Your task to perform on an android device: turn off javascript in the chrome app Image 0: 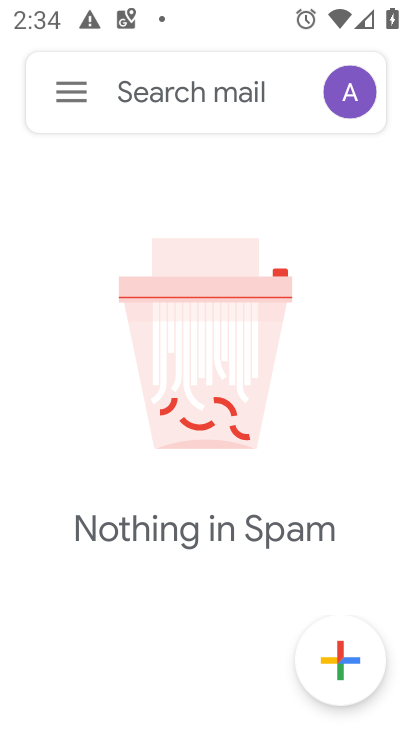
Step 0: press home button
Your task to perform on an android device: turn off javascript in the chrome app Image 1: 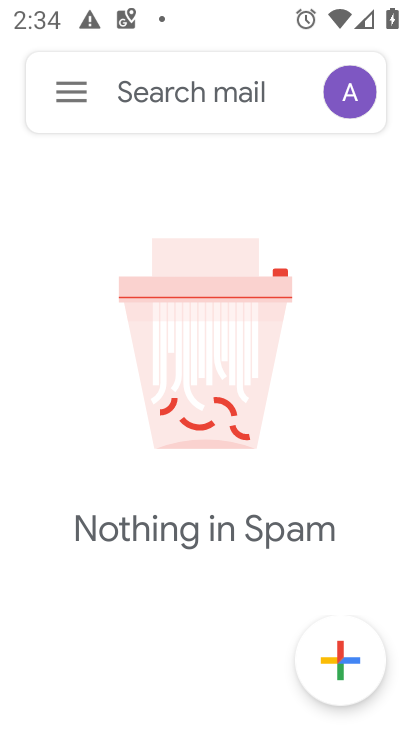
Step 1: press home button
Your task to perform on an android device: turn off javascript in the chrome app Image 2: 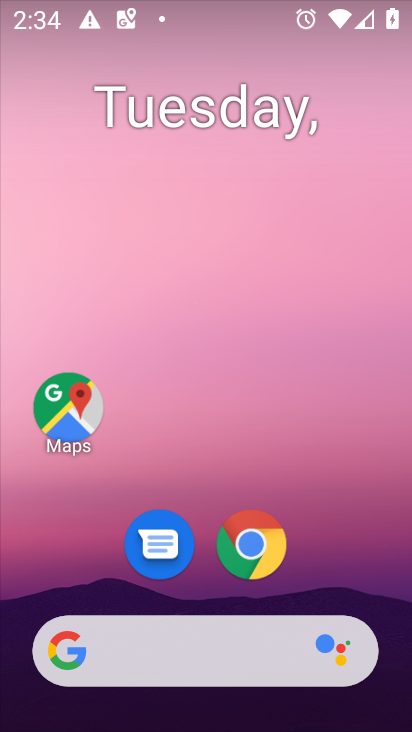
Step 2: drag from (345, 514) to (329, 24)
Your task to perform on an android device: turn off javascript in the chrome app Image 3: 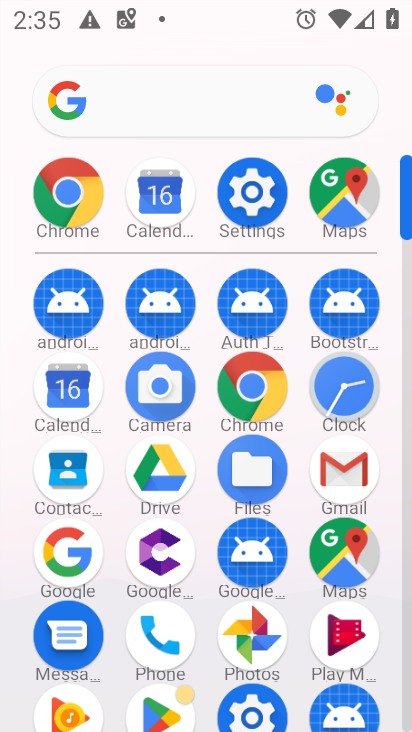
Step 3: click (263, 380)
Your task to perform on an android device: turn off javascript in the chrome app Image 4: 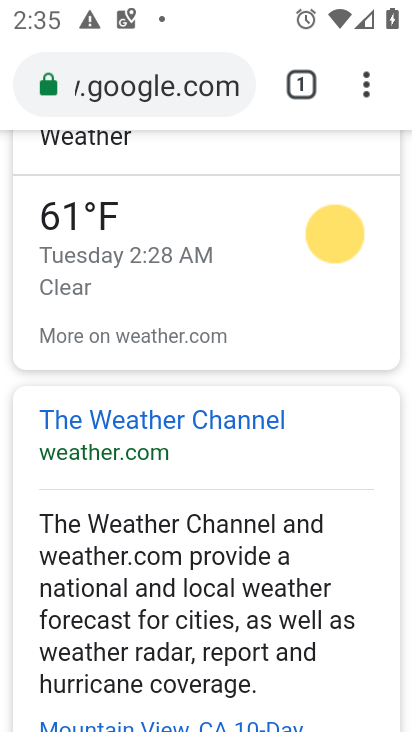
Step 4: drag from (364, 76) to (152, 600)
Your task to perform on an android device: turn off javascript in the chrome app Image 5: 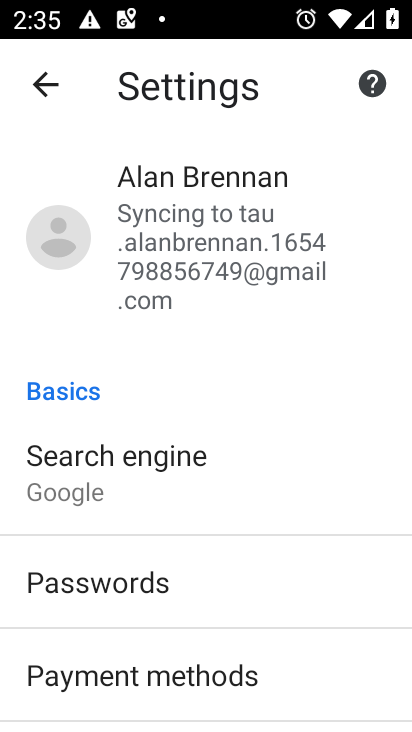
Step 5: drag from (315, 626) to (320, 116)
Your task to perform on an android device: turn off javascript in the chrome app Image 6: 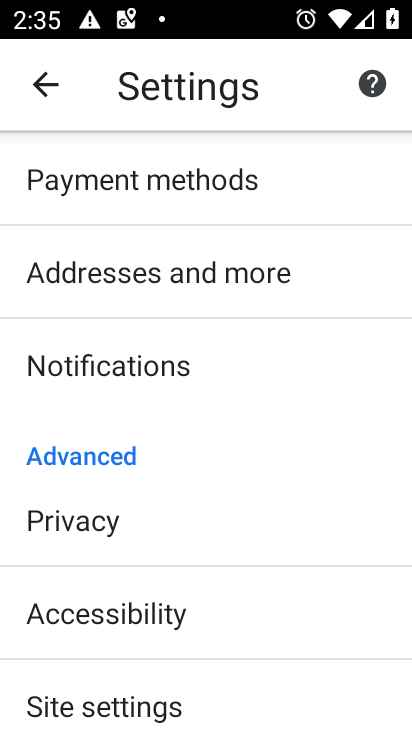
Step 6: drag from (296, 649) to (323, 204)
Your task to perform on an android device: turn off javascript in the chrome app Image 7: 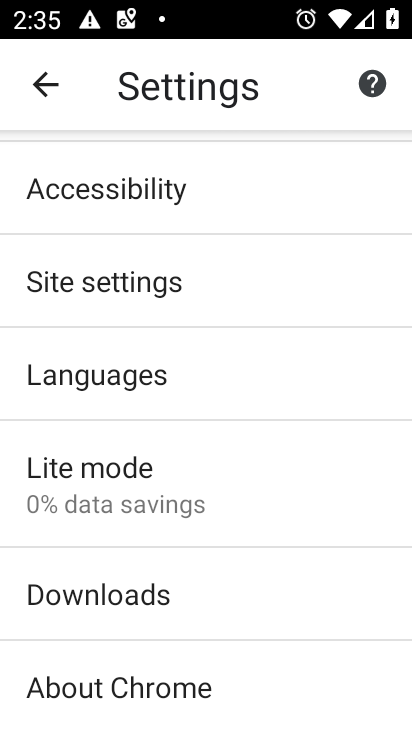
Step 7: drag from (211, 654) to (284, 194)
Your task to perform on an android device: turn off javascript in the chrome app Image 8: 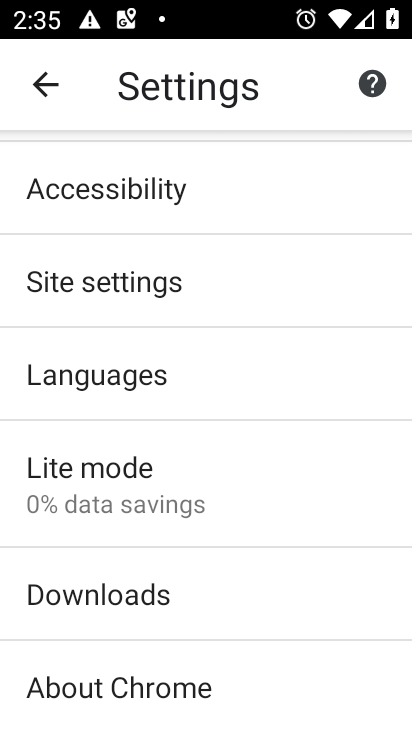
Step 8: click (159, 281)
Your task to perform on an android device: turn off javascript in the chrome app Image 9: 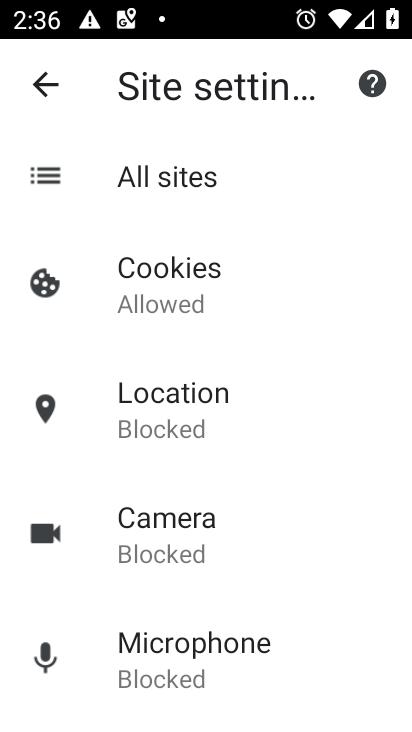
Step 9: drag from (273, 668) to (313, 130)
Your task to perform on an android device: turn off javascript in the chrome app Image 10: 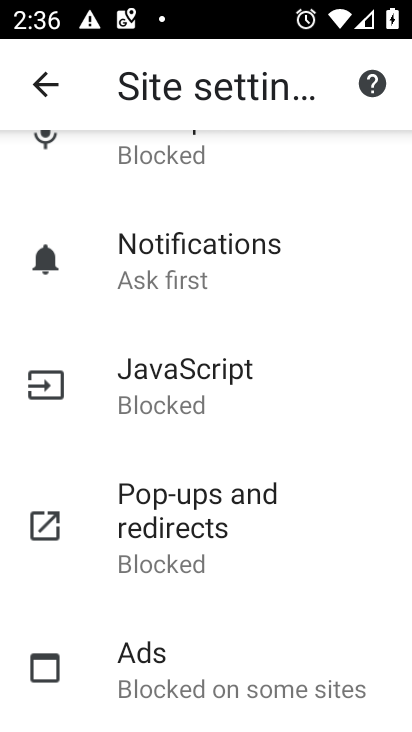
Step 10: click (198, 395)
Your task to perform on an android device: turn off javascript in the chrome app Image 11: 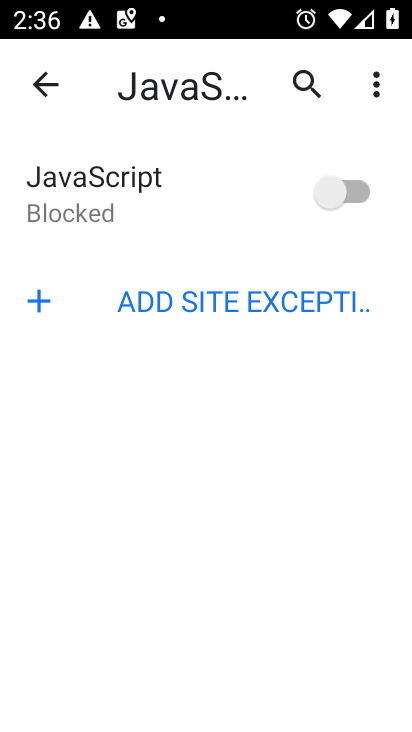
Step 11: task complete